Your task to perform on an android device: delete the emails in spam in the gmail app Image 0: 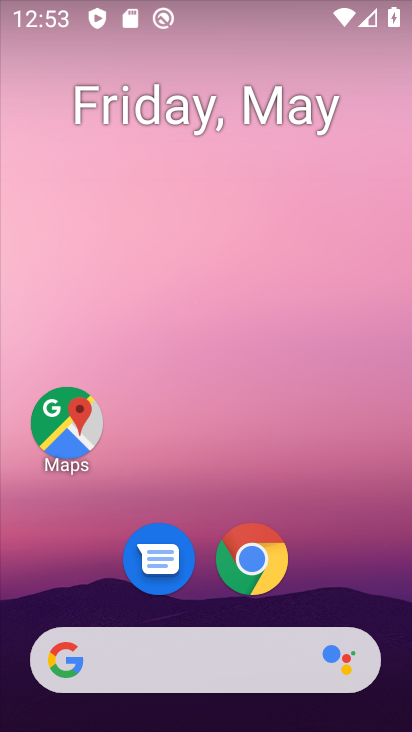
Step 0: drag from (310, 549) to (299, 210)
Your task to perform on an android device: delete the emails in spam in the gmail app Image 1: 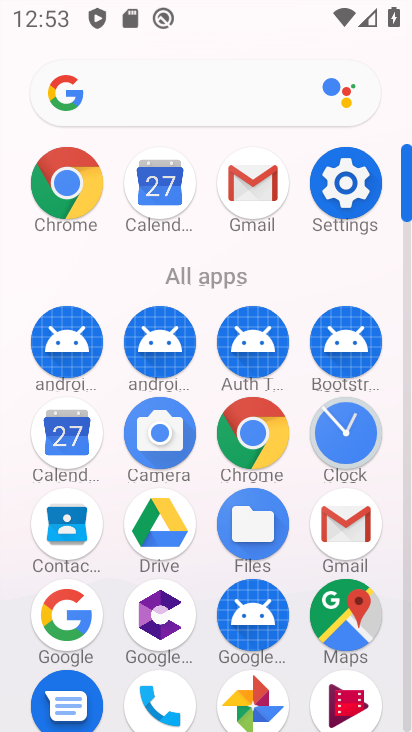
Step 1: click (373, 531)
Your task to perform on an android device: delete the emails in spam in the gmail app Image 2: 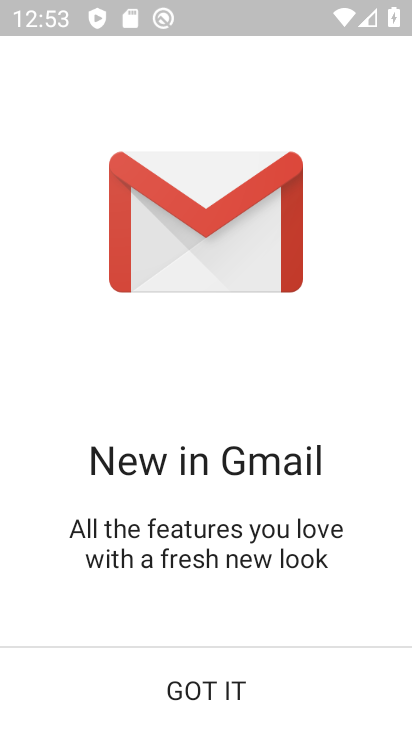
Step 2: click (186, 692)
Your task to perform on an android device: delete the emails in spam in the gmail app Image 3: 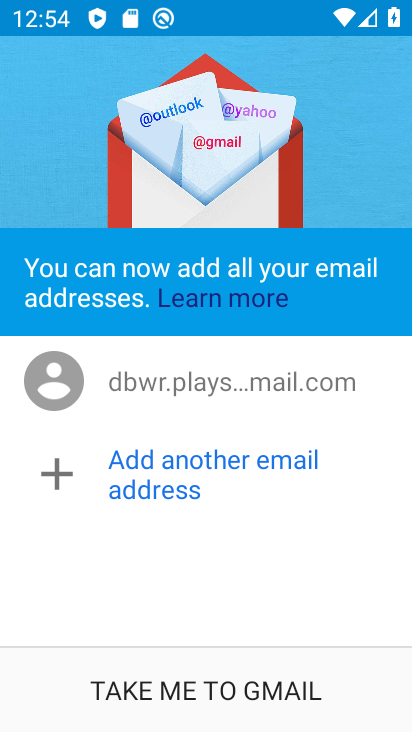
Step 3: click (215, 708)
Your task to perform on an android device: delete the emails in spam in the gmail app Image 4: 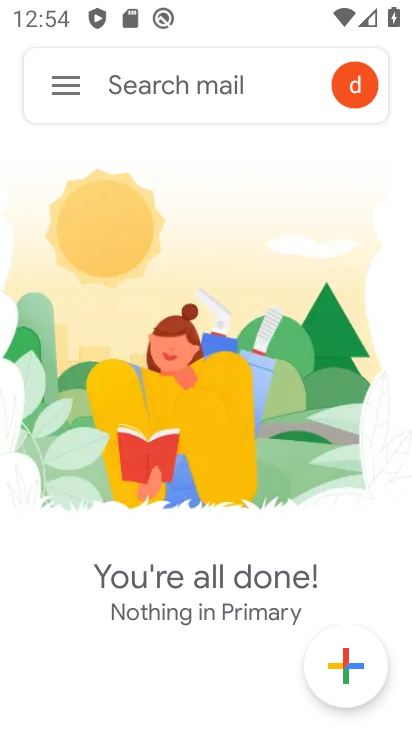
Step 4: click (69, 74)
Your task to perform on an android device: delete the emails in spam in the gmail app Image 5: 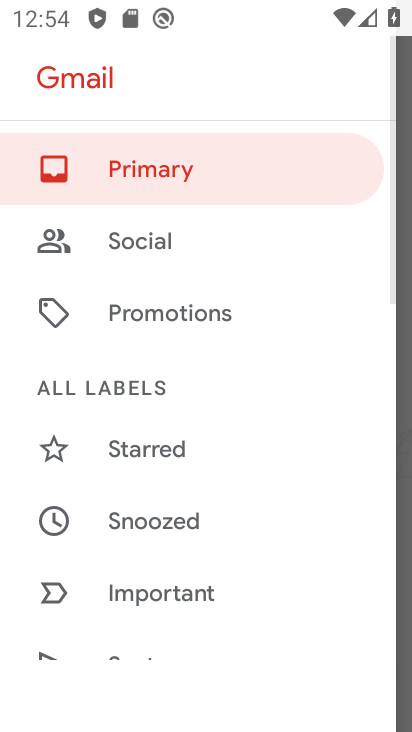
Step 5: drag from (174, 561) to (175, 289)
Your task to perform on an android device: delete the emails in spam in the gmail app Image 6: 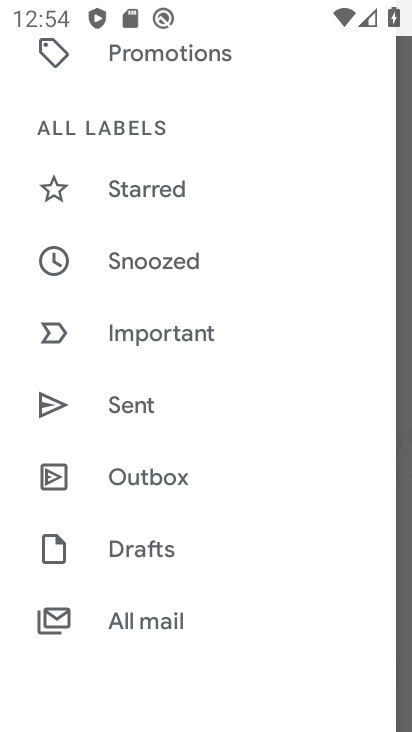
Step 6: drag from (210, 605) to (162, 314)
Your task to perform on an android device: delete the emails in spam in the gmail app Image 7: 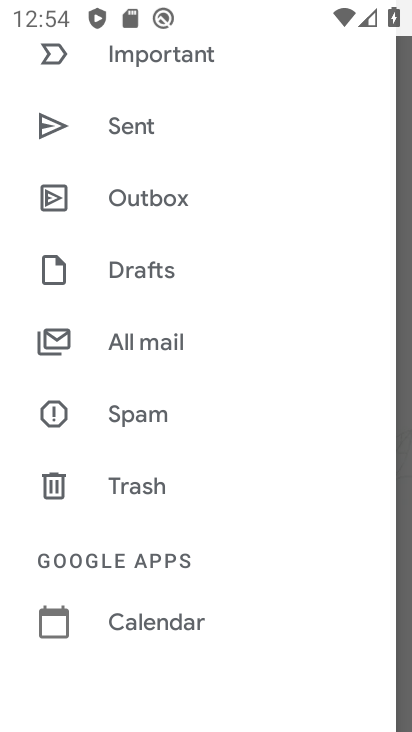
Step 7: click (124, 428)
Your task to perform on an android device: delete the emails in spam in the gmail app Image 8: 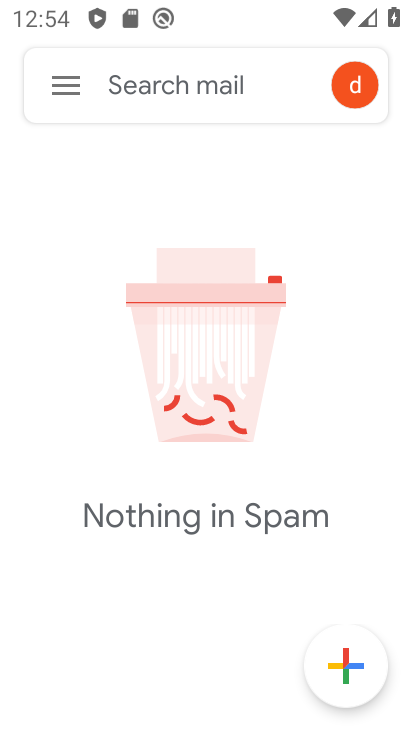
Step 8: task complete